Your task to perform on an android device: Open Google Maps and go to "Timeline" Image 0: 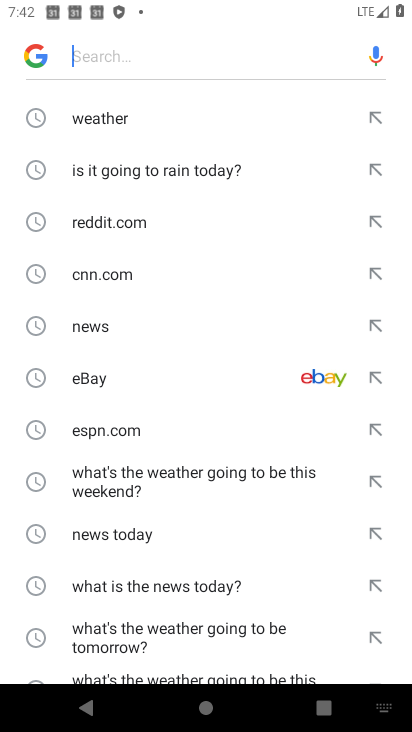
Step 0: press home button
Your task to perform on an android device: Open Google Maps and go to "Timeline" Image 1: 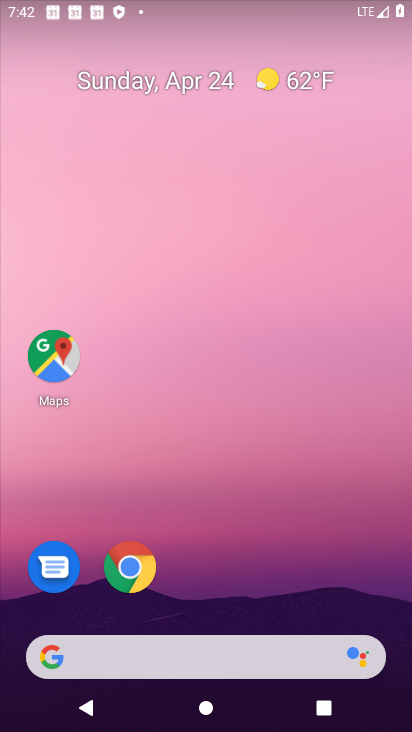
Step 1: click (54, 356)
Your task to perform on an android device: Open Google Maps and go to "Timeline" Image 2: 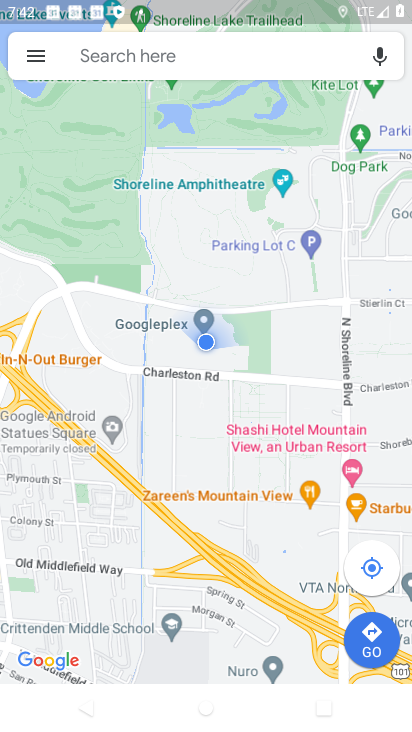
Step 2: click (36, 59)
Your task to perform on an android device: Open Google Maps and go to "Timeline" Image 3: 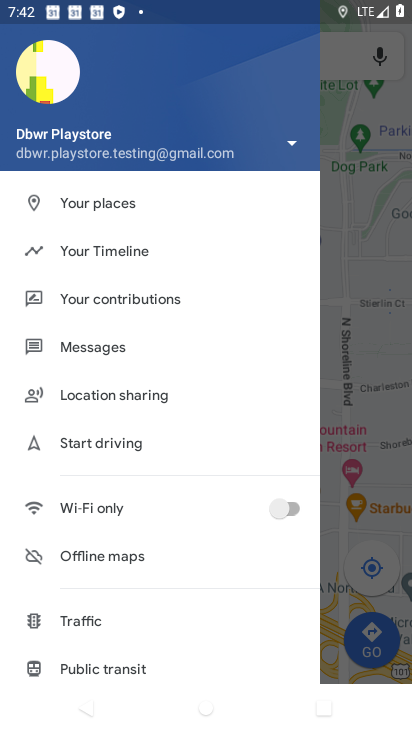
Step 3: click (109, 252)
Your task to perform on an android device: Open Google Maps and go to "Timeline" Image 4: 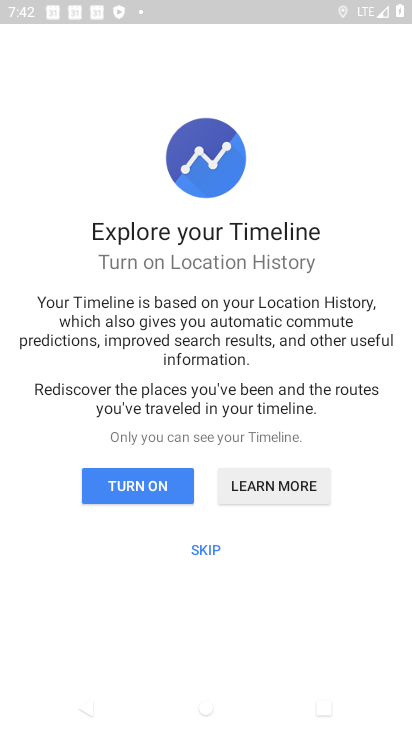
Step 4: click (154, 494)
Your task to perform on an android device: Open Google Maps and go to "Timeline" Image 5: 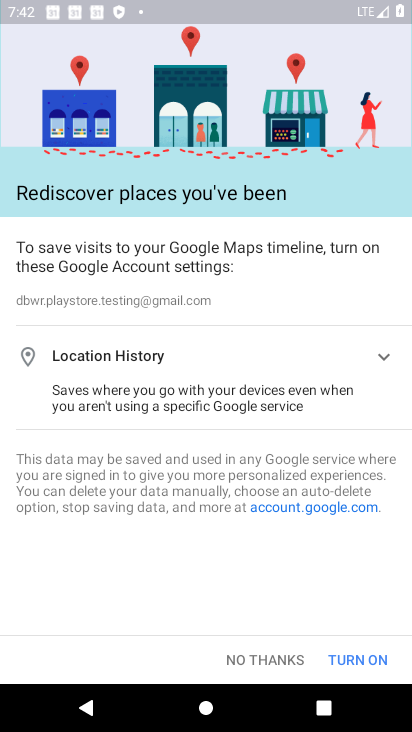
Step 5: click (363, 659)
Your task to perform on an android device: Open Google Maps and go to "Timeline" Image 6: 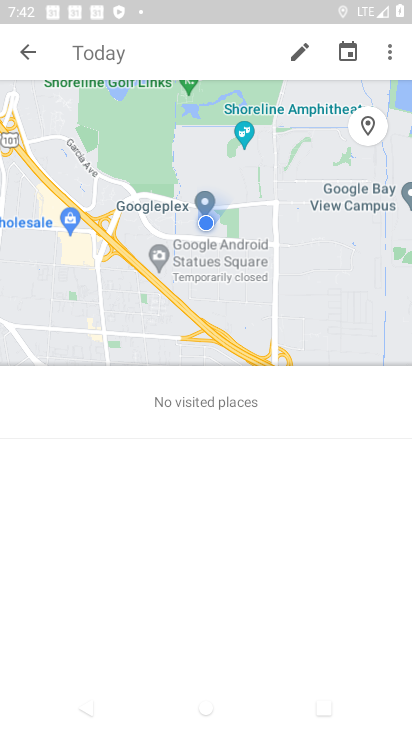
Step 6: task complete